Your task to perform on an android device: turn off data saver in the chrome app Image 0: 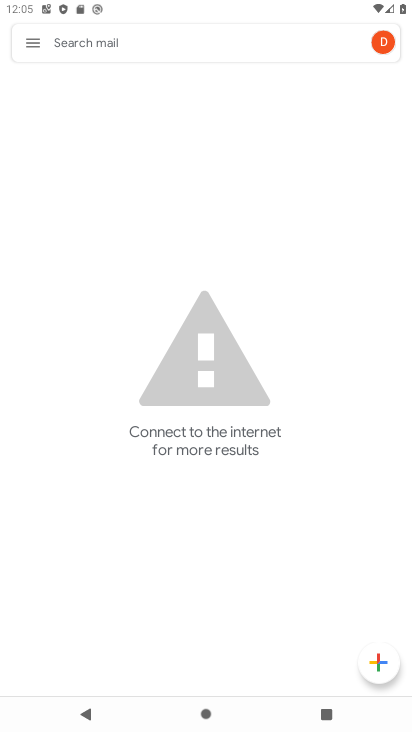
Step 0: press home button
Your task to perform on an android device: turn off data saver in the chrome app Image 1: 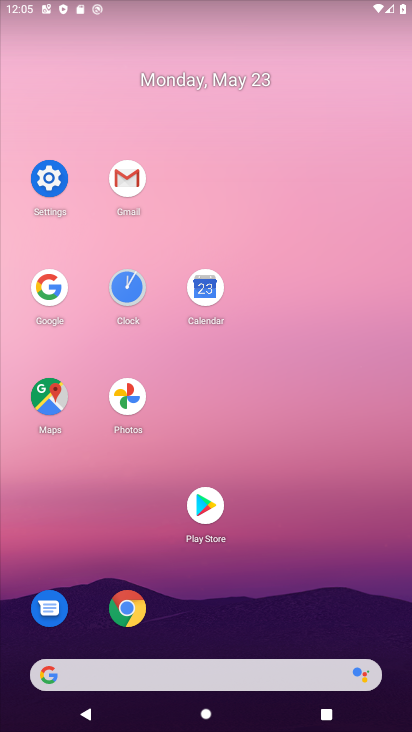
Step 1: click (139, 618)
Your task to perform on an android device: turn off data saver in the chrome app Image 2: 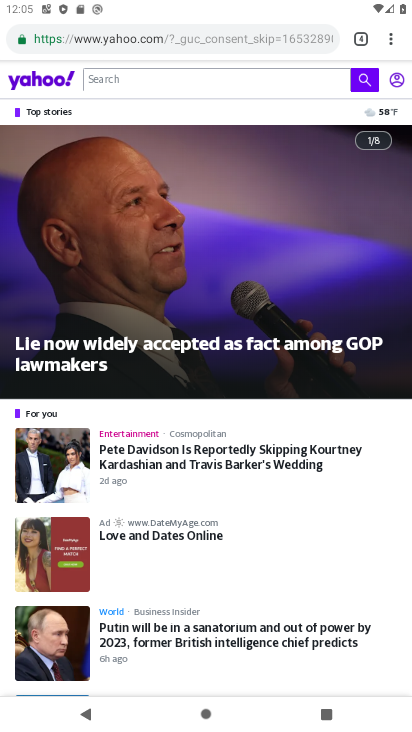
Step 2: click (395, 30)
Your task to perform on an android device: turn off data saver in the chrome app Image 3: 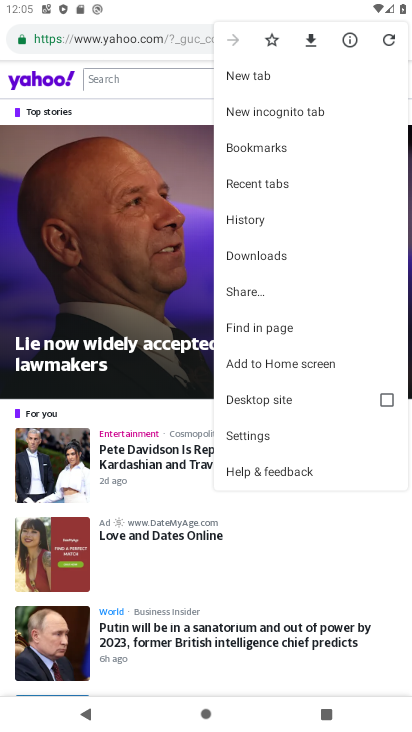
Step 3: click (262, 437)
Your task to perform on an android device: turn off data saver in the chrome app Image 4: 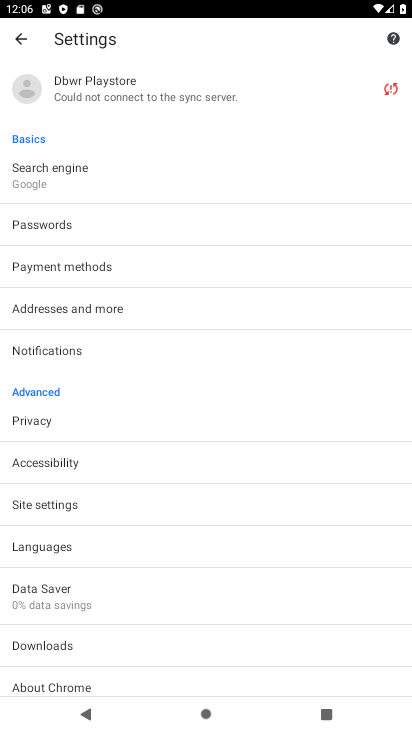
Step 4: click (105, 589)
Your task to perform on an android device: turn off data saver in the chrome app Image 5: 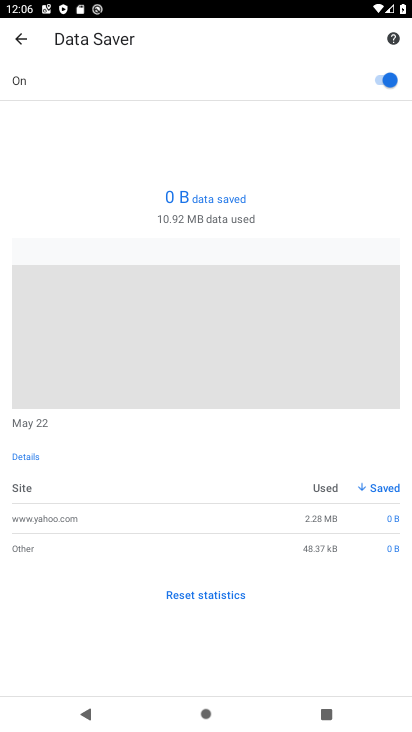
Step 5: click (382, 81)
Your task to perform on an android device: turn off data saver in the chrome app Image 6: 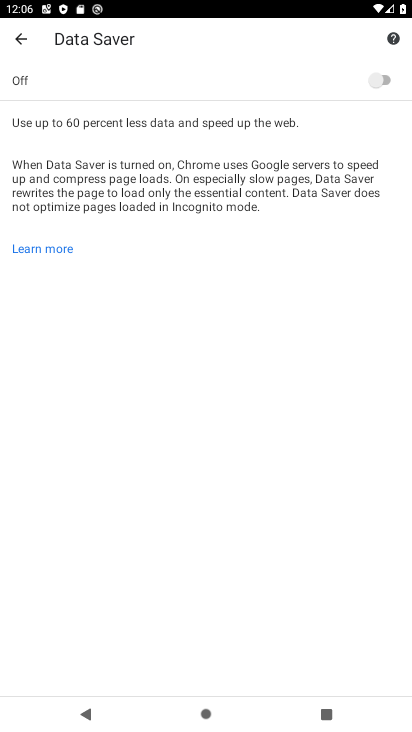
Step 6: task complete